Your task to perform on an android device: Open the Play Movies app and select the watchlist tab. Image 0: 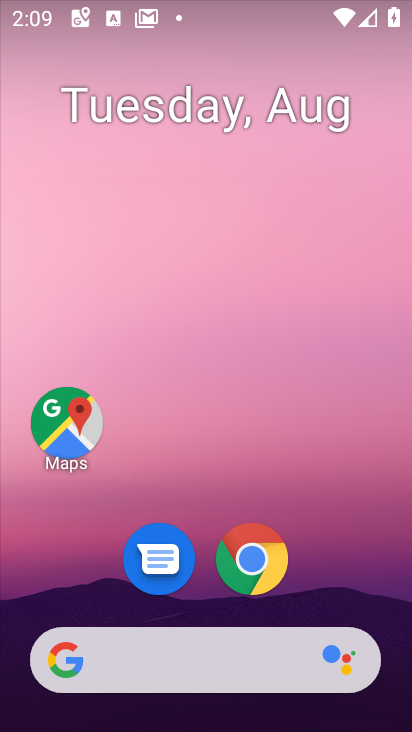
Step 0: drag from (207, 493) to (207, 94)
Your task to perform on an android device: Open the Play Movies app and select the watchlist tab. Image 1: 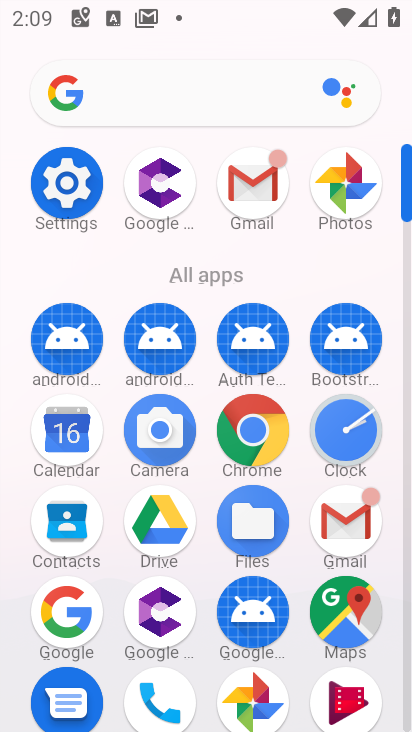
Step 1: click (330, 695)
Your task to perform on an android device: Open the Play Movies app and select the watchlist tab. Image 2: 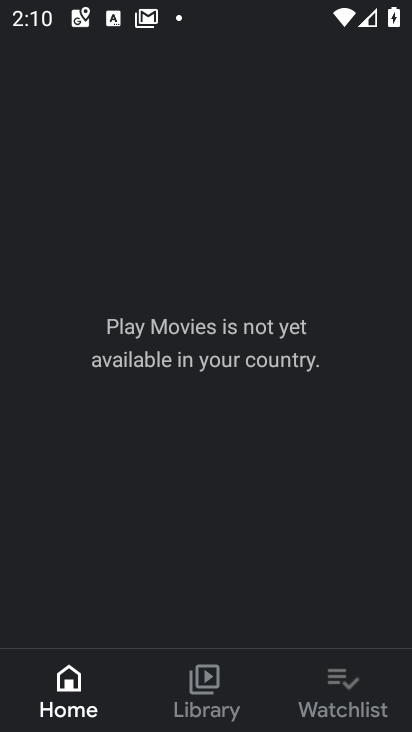
Step 2: click (332, 698)
Your task to perform on an android device: Open the Play Movies app and select the watchlist tab. Image 3: 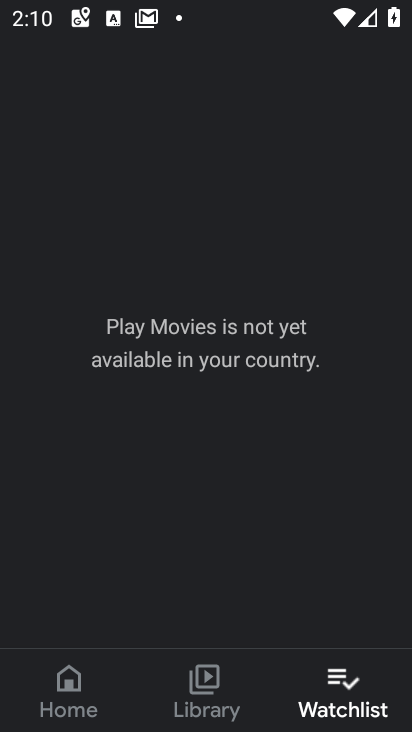
Step 3: task complete